Your task to perform on an android device: turn on priority inbox in the gmail app Image 0: 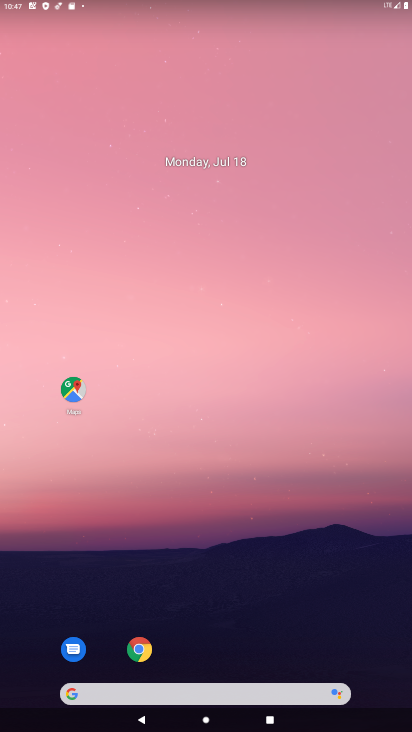
Step 0: drag from (174, 714) to (230, 72)
Your task to perform on an android device: turn on priority inbox in the gmail app Image 1: 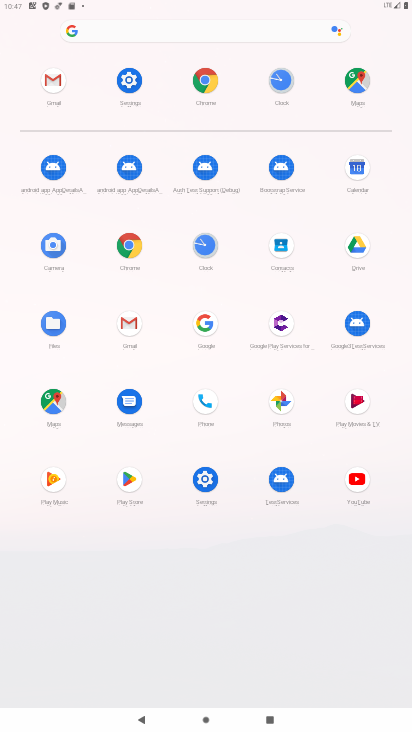
Step 1: click (53, 78)
Your task to perform on an android device: turn on priority inbox in the gmail app Image 2: 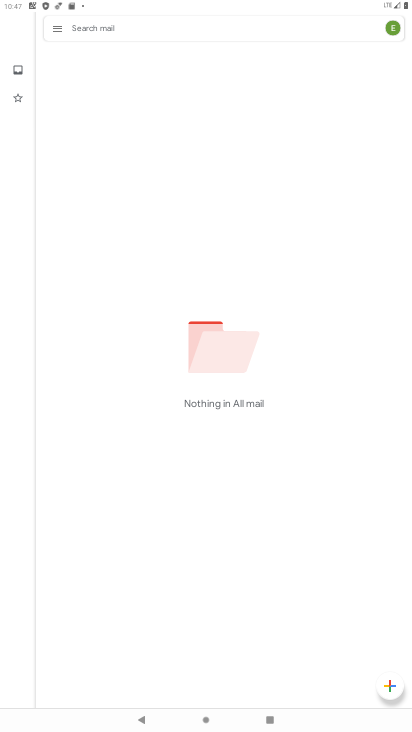
Step 2: click (55, 21)
Your task to perform on an android device: turn on priority inbox in the gmail app Image 3: 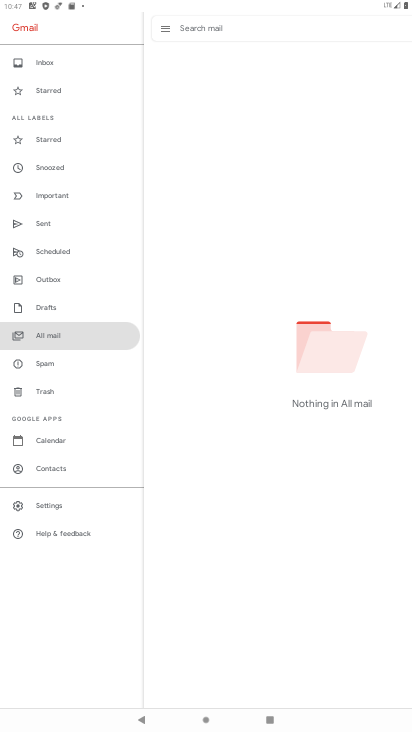
Step 3: click (74, 506)
Your task to perform on an android device: turn on priority inbox in the gmail app Image 4: 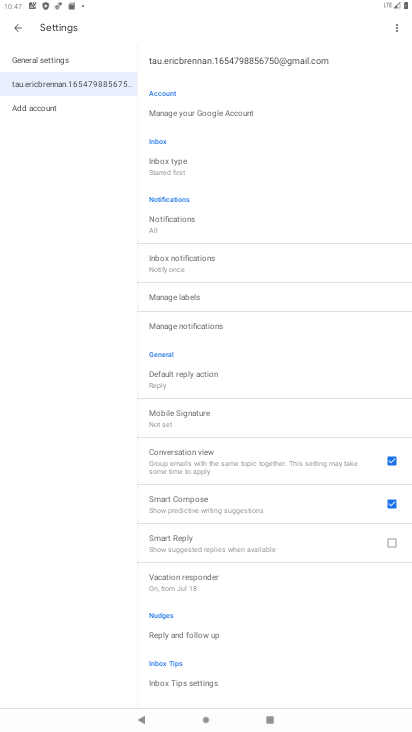
Step 4: click (176, 167)
Your task to perform on an android device: turn on priority inbox in the gmail app Image 5: 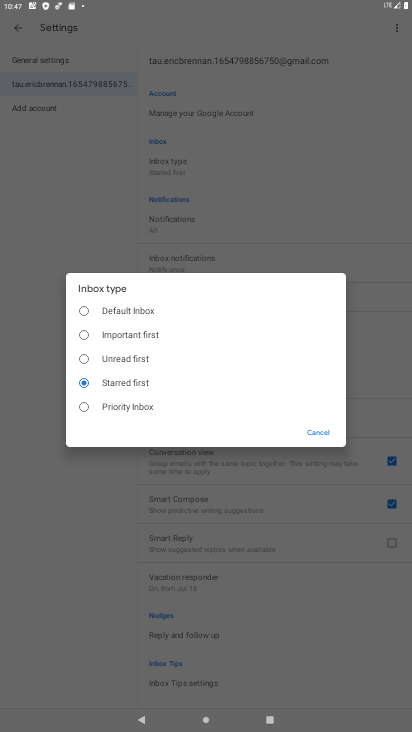
Step 5: click (130, 415)
Your task to perform on an android device: turn on priority inbox in the gmail app Image 6: 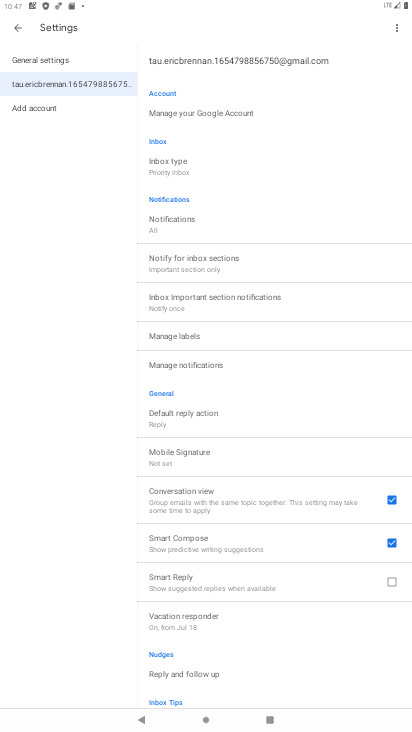
Step 6: task complete